Your task to perform on an android device: Open eBay Image 0: 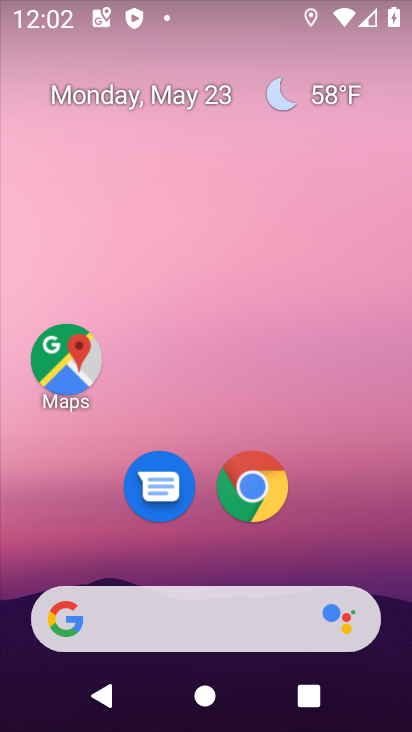
Step 0: click (242, 484)
Your task to perform on an android device: Open eBay Image 1: 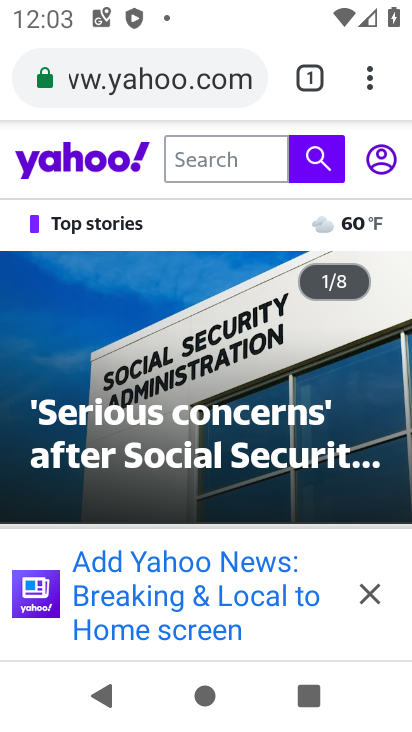
Step 1: click (150, 89)
Your task to perform on an android device: Open eBay Image 2: 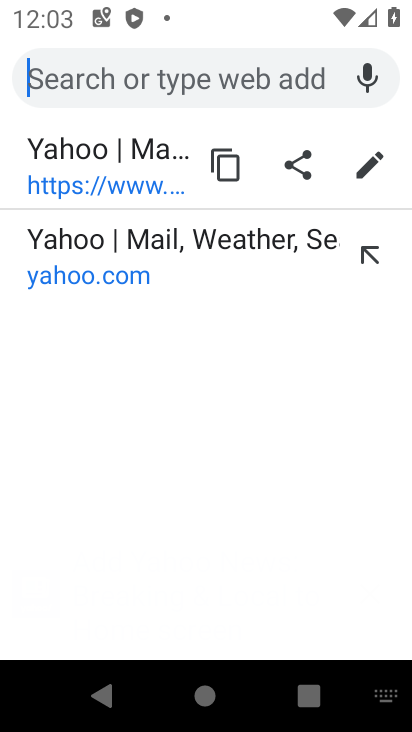
Step 2: type "ebay"
Your task to perform on an android device: Open eBay Image 3: 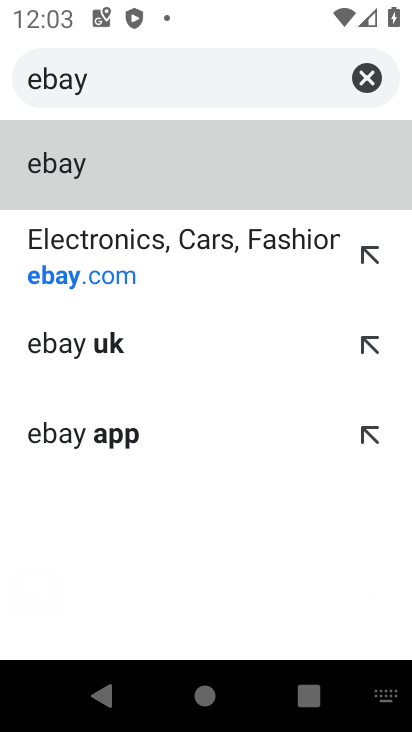
Step 3: click (107, 238)
Your task to perform on an android device: Open eBay Image 4: 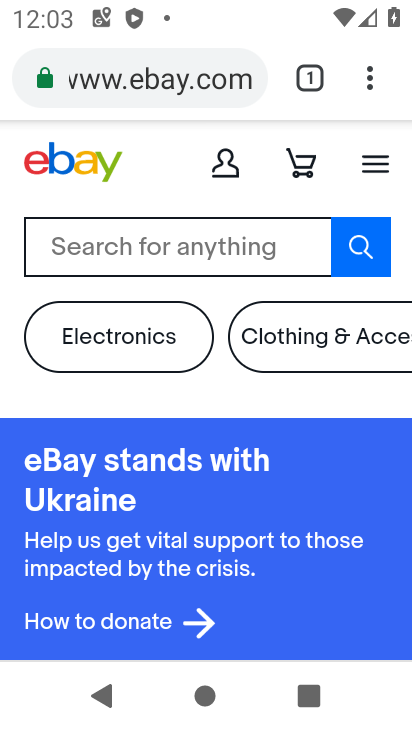
Step 4: task complete